Your task to perform on an android device: move a message to another label in the gmail app Image 0: 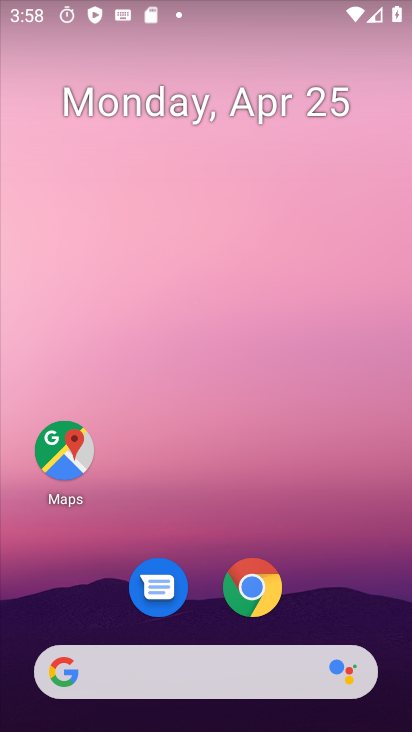
Step 0: drag from (357, 619) to (344, 152)
Your task to perform on an android device: move a message to another label in the gmail app Image 1: 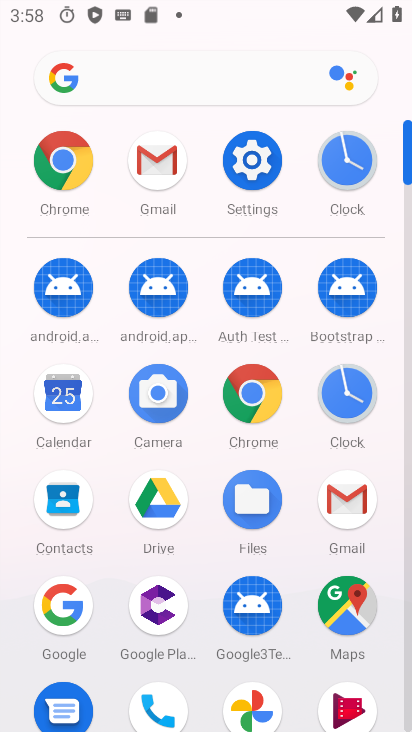
Step 1: click (145, 171)
Your task to perform on an android device: move a message to another label in the gmail app Image 2: 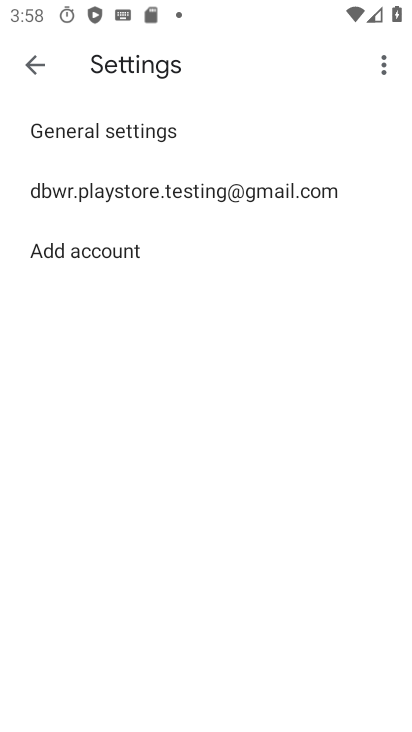
Step 2: click (212, 184)
Your task to perform on an android device: move a message to another label in the gmail app Image 3: 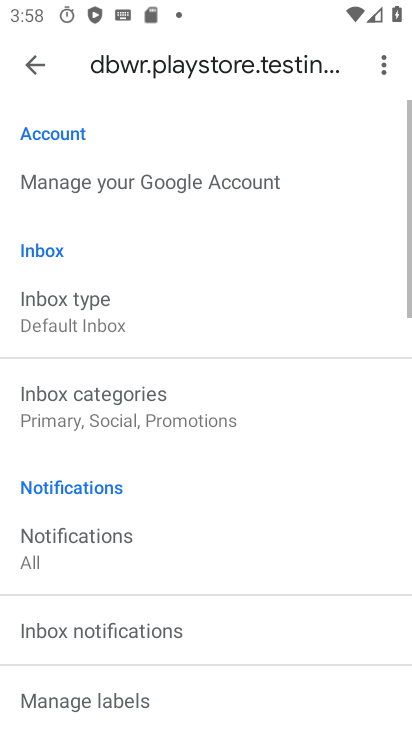
Step 3: click (48, 53)
Your task to perform on an android device: move a message to another label in the gmail app Image 4: 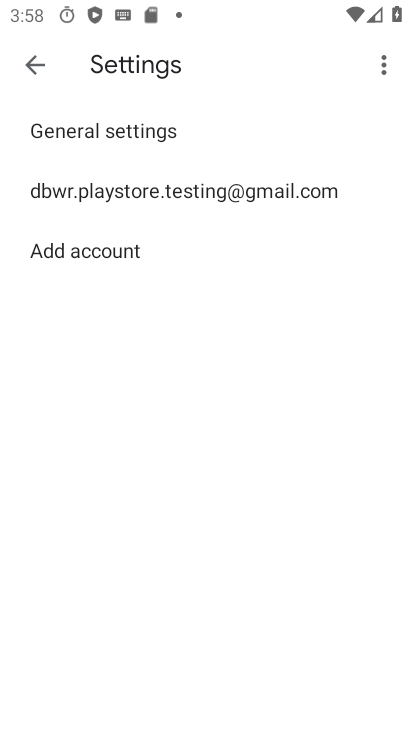
Step 4: click (36, 68)
Your task to perform on an android device: move a message to another label in the gmail app Image 5: 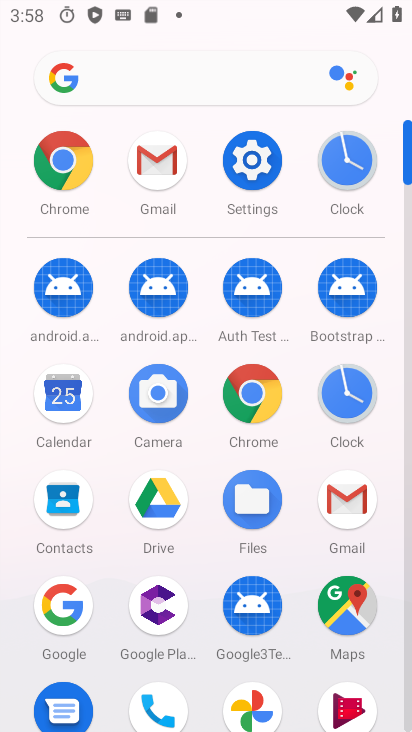
Step 5: click (352, 485)
Your task to perform on an android device: move a message to another label in the gmail app Image 6: 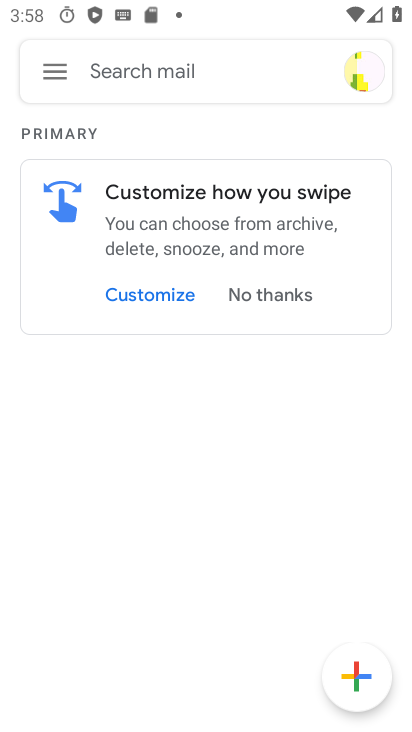
Step 6: click (61, 73)
Your task to perform on an android device: move a message to another label in the gmail app Image 7: 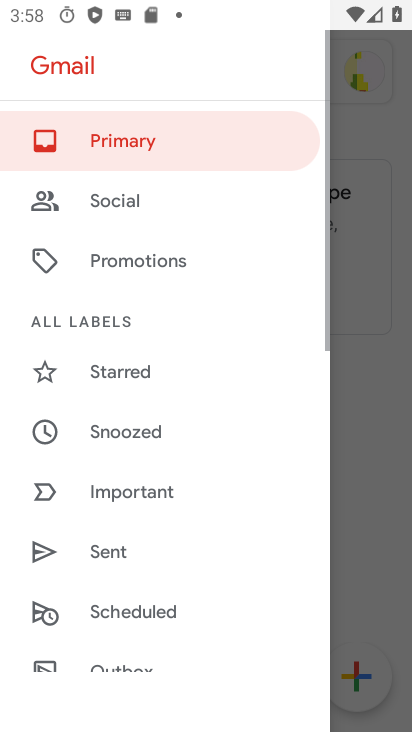
Step 7: drag from (113, 619) to (197, 272)
Your task to perform on an android device: move a message to another label in the gmail app Image 8: 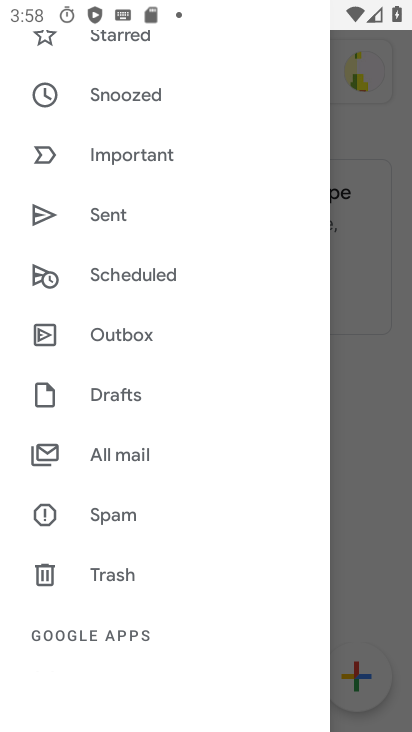
Step 8: drag from (164, 197) to (143, 608)
Your task to perform on an android device: move a message to another label in the gmail app Image 9: 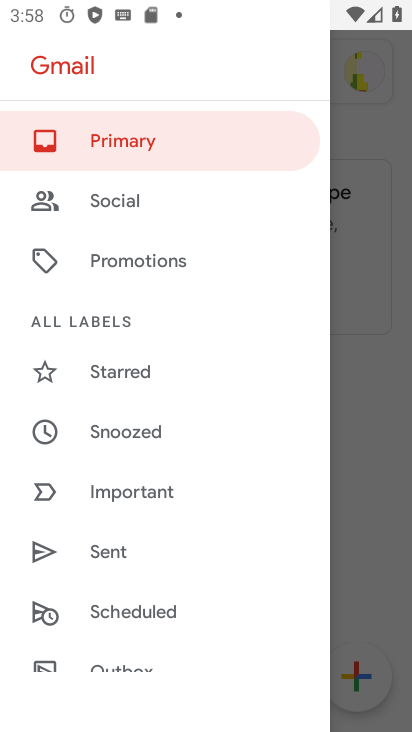
Step 9: drag from (92, 622) to (216, 304)
Your task to perform on an android device: move a message to another label in the gmail app Image 10: 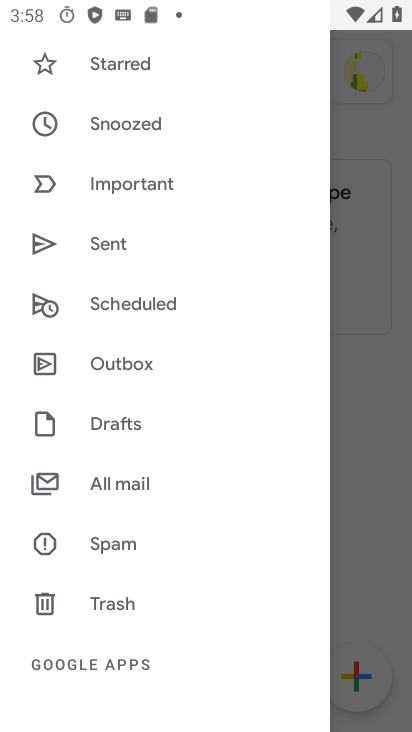
Step 10: click (145, 469)
Your task to perform on an android device: move a message to another label in the gmail app Image 11: 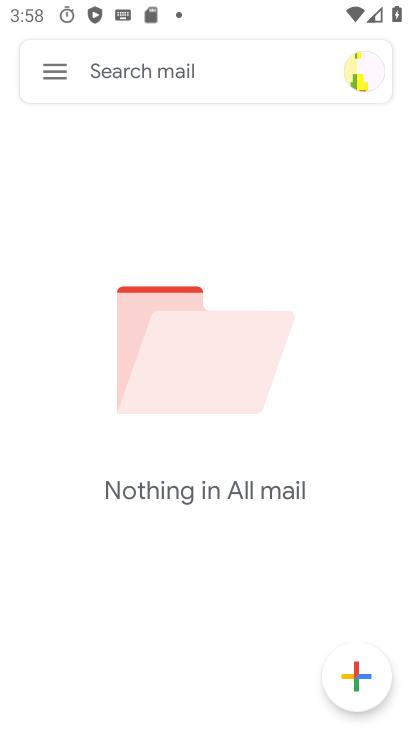
Step 11: task complete